Your task to perform on an android device: turn on the 12-hour format for clock Image 0: 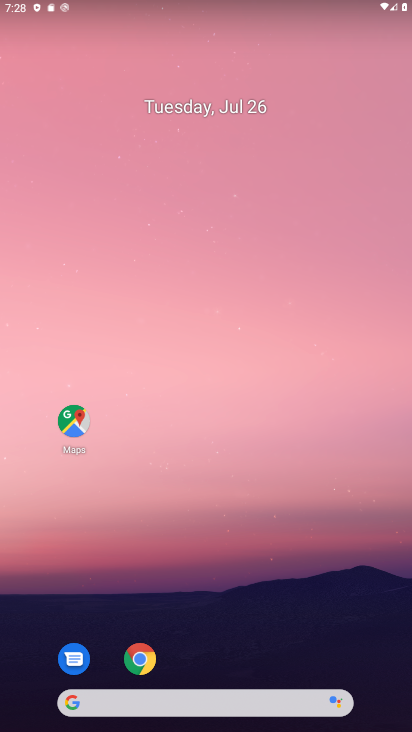
Step 0: drag from (200, 673) to (95, 253)
Your task to perform on an android device: turn on the 12-hour format for clock Image 1: 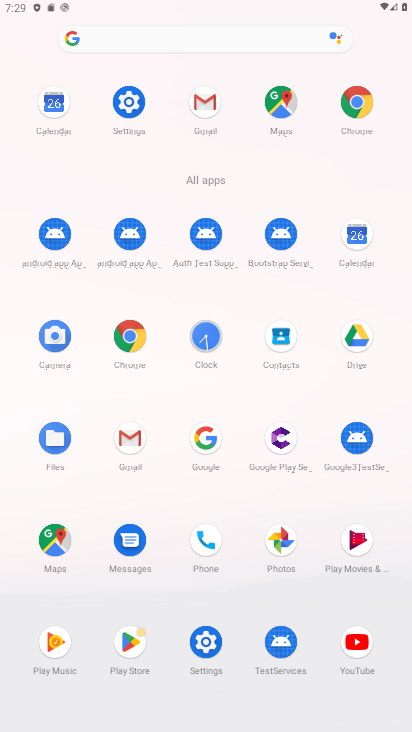
Step 1: click (95, 253)
Your task to perform on an android device: turn on the 12-hour format for clock Image 2: 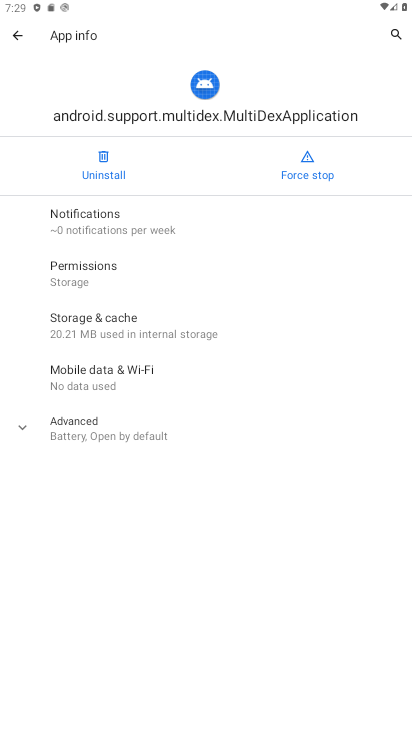
Step 2: click (21, 28)
Your task to perform on an android device: turn on the 12-hour format for clock Image 3: 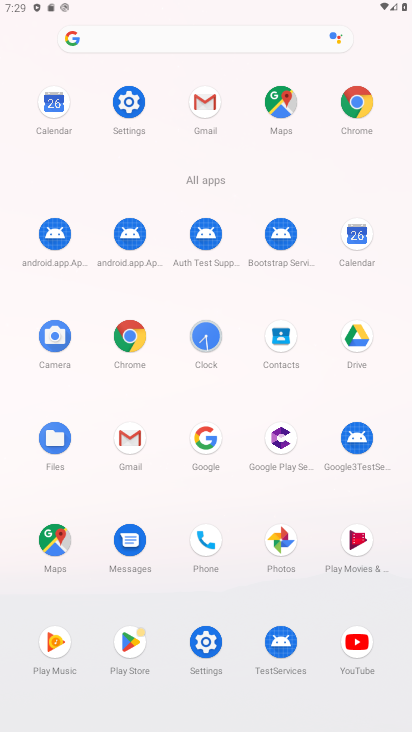
Step 3: click (214, 361)
Your task to perform on an android device: turn on the 12-hour format for clock Image 4: 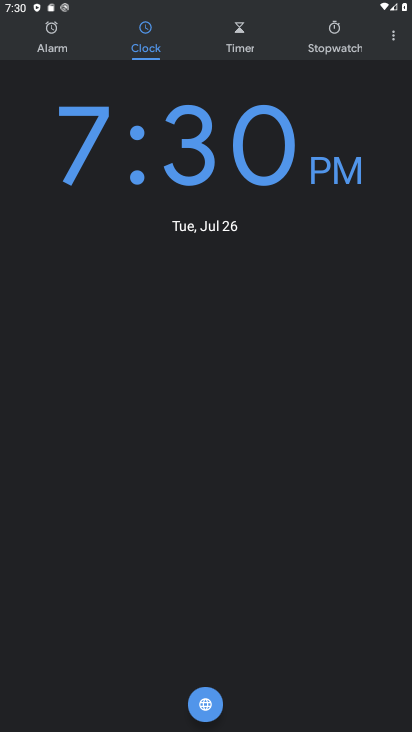
Step 4: click (390, 34)
Your task to perform on an android device: turn on the 12-hour format for clock Image 5: 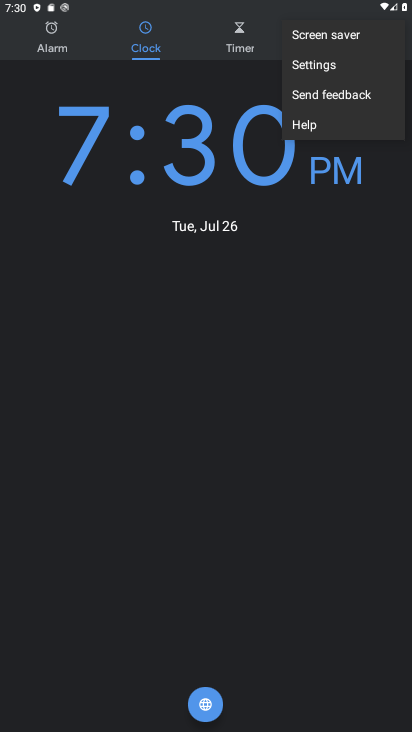
Step 5: click (316, 64)
Your task to perform on an android device: turn on the 12-hour format for clock Image 6: 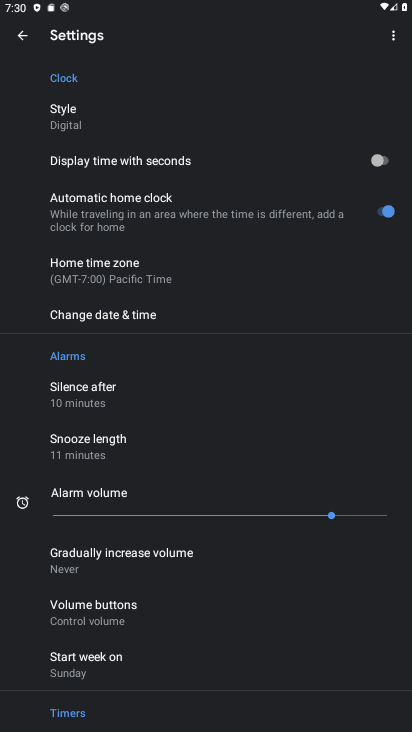
Step 6: click (83, 325)
Your task to perform on an android device: turn on the 12-hour format for clock Image 7: 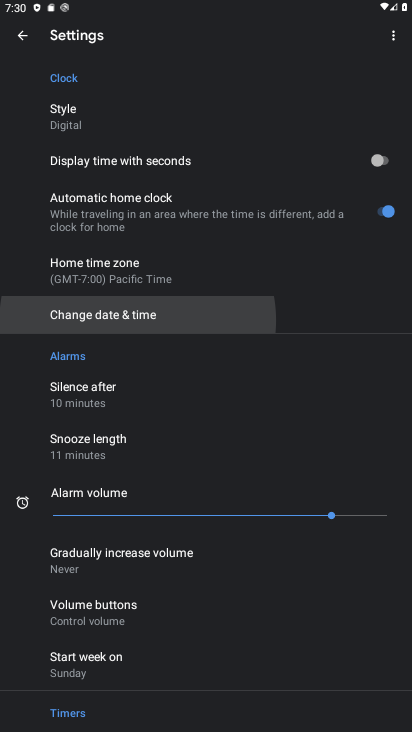
Step 7: click (83, 325)
Your task to perform on an android device: turn on the 12-hour format for clock Image 8: 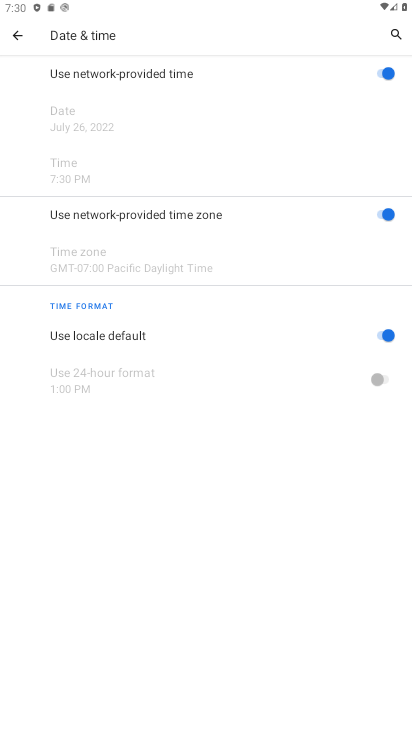
Step 8: task complete